Your task to perform on an android device: visit the assistant section in the google photos Image 0: 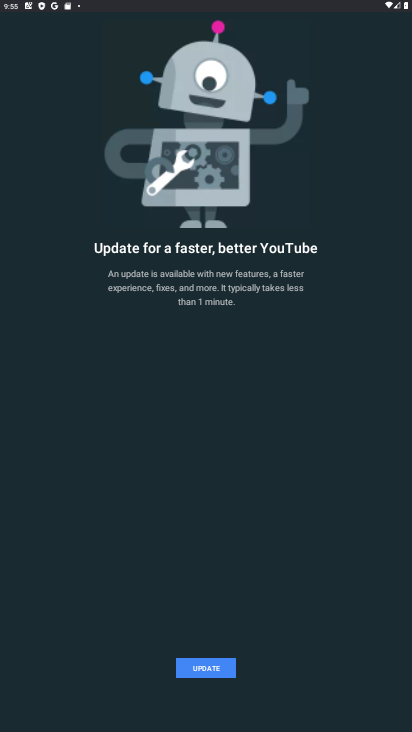
Step 0: press home button
Your task to perform on an android device: visit the assistant section in the google photos Image 1: 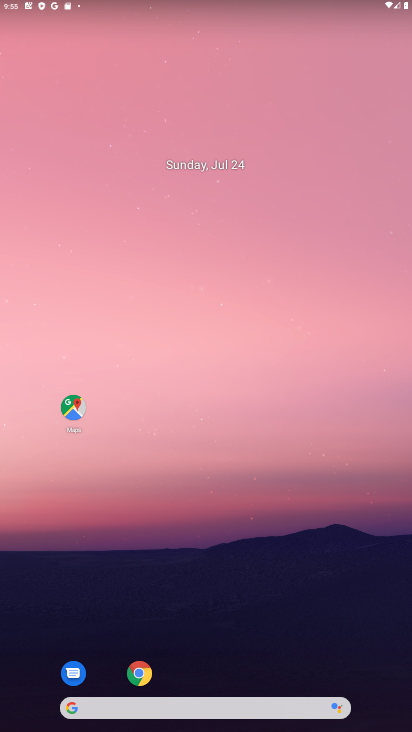
Step 1: drag from (18, 690) to (142, 215)
Your task to perform on an android device: visit the assistant section in the google photos Image 2: 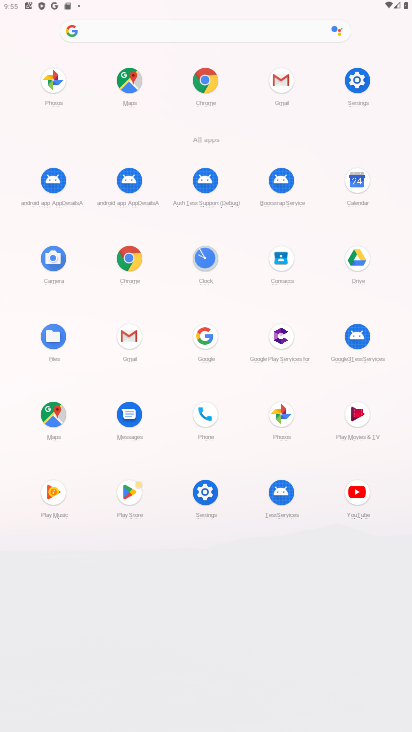
Step 2: click (274, 417)
Your task to perform on an android device: visit the assistant section in the google photos Image 3: 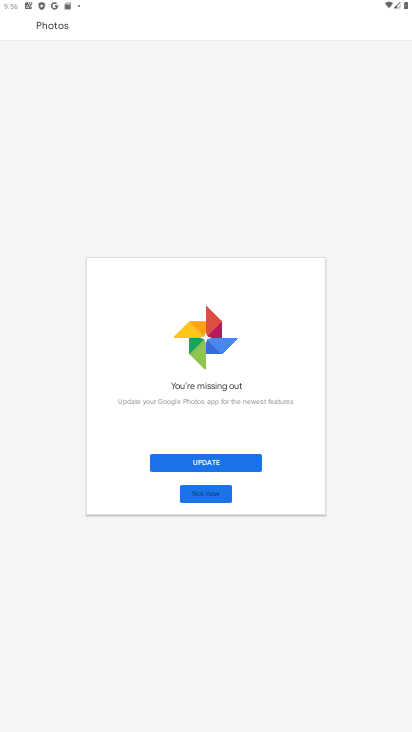
Step 3: click (210, 490)
Your task to perform on an android device: visit the assistant section in the google photos Image 4: 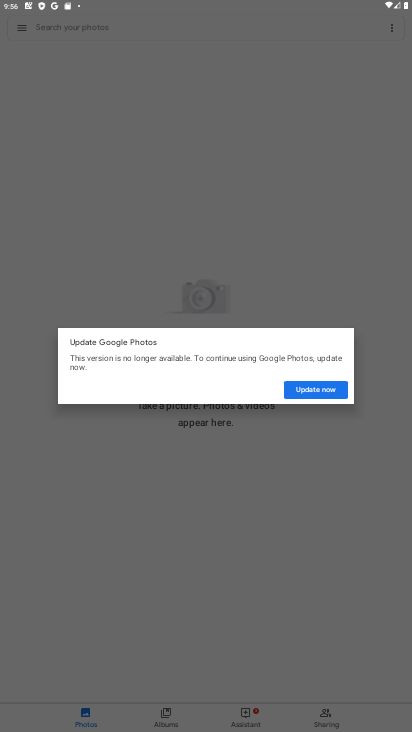
Step 4: click (323, 381)
Your task to perform on an android device: visit the assistant section in the google photos Image 5: 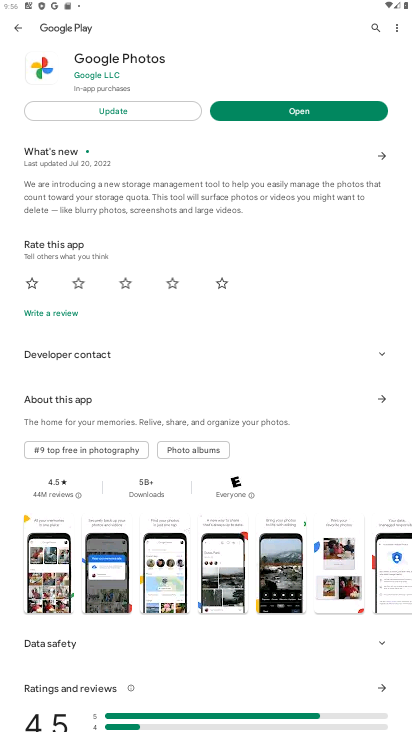
Step 5: click (315, 109)
Your task to perform on an android device: visit the assistant section in the google photos Image 6: 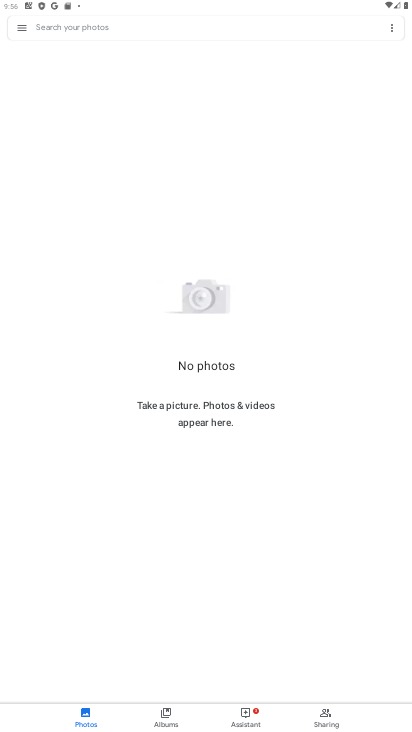
Step 6: click (244, 709)
Your task to perform on an android device: visit the assistant section in the google photos Image 7: 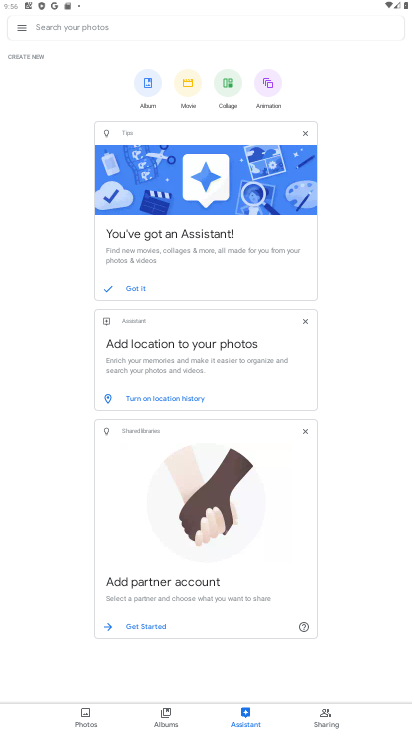
Step 7: task complete